Your task to perform on an android device: turn on javascript in the chrome app Image 0: 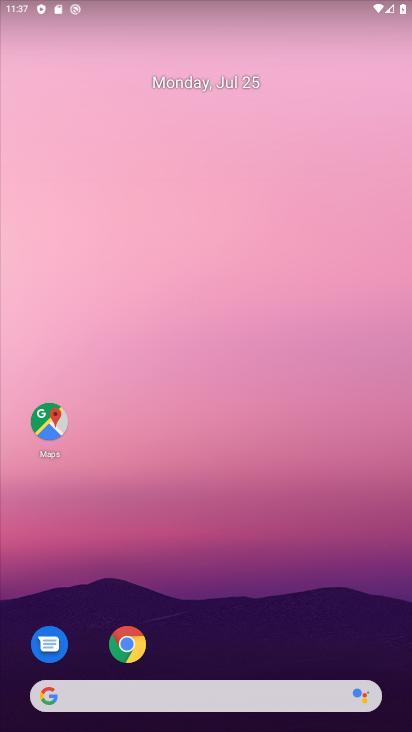
Step 0: drag from (286, 572) to (128, 15)
Your task to perform on an android device: turn on javascript in the chrome app Image 1: 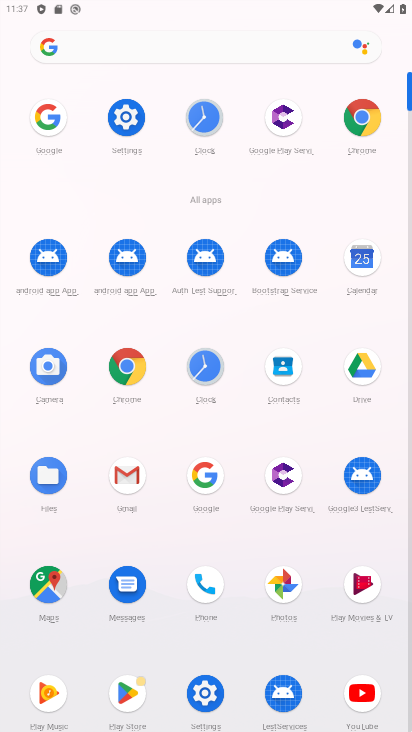
Step 1: click (372, 111)
Your task to perform on an android device: turn on javascript in the chrome app Image 2: 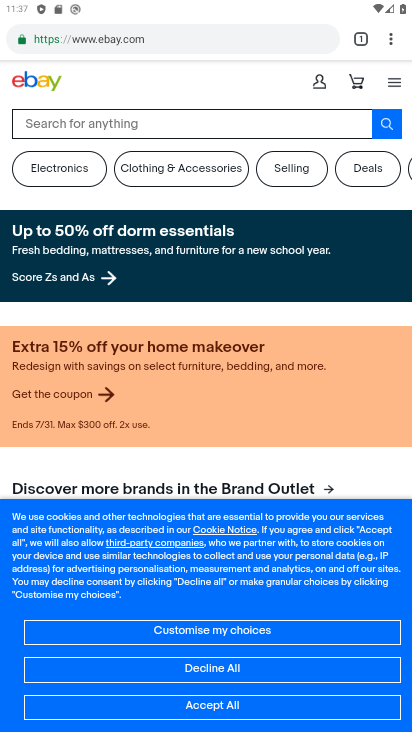
Step 2: drag from (391, 38) to (266, 460)
Your task to perform on an android device: turn on javascript in the chrome app Image 3: 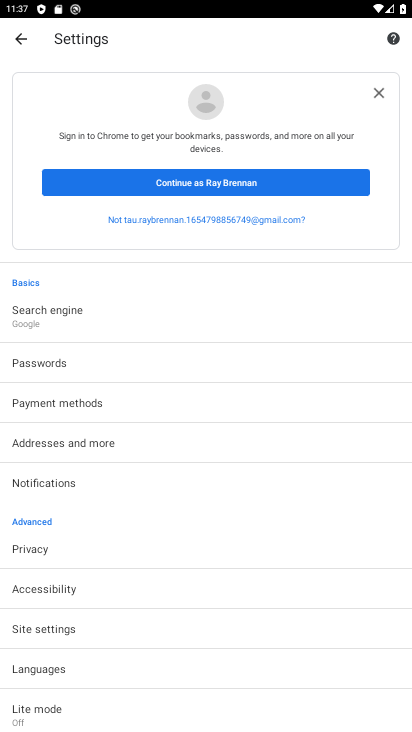
Step 3: drag from (134, 646) to (173, 240)
Your task to perform on an android device: turn on javascript in the chrome app Image 4: 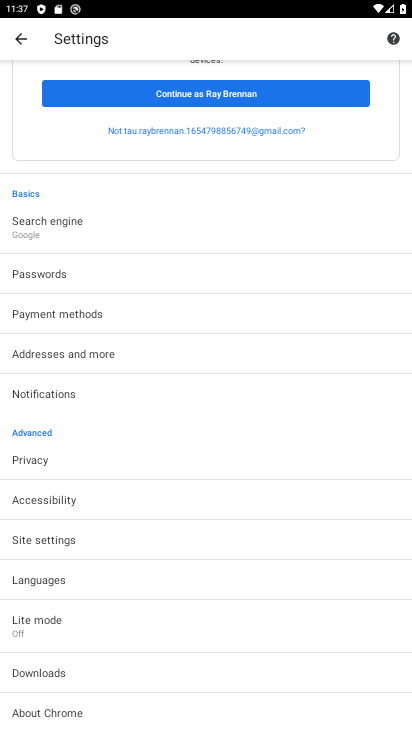
Step 4: click (77, 549)
Your task to perform on an android device: turn on javascript in the chrome app Image 5: 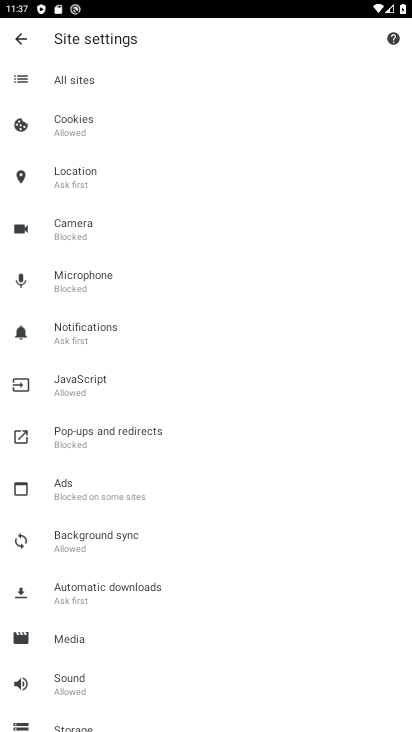
Step 5: click (80, 392)
Your task to perform on an android device: turn on javascript in the chrome app Image 6: 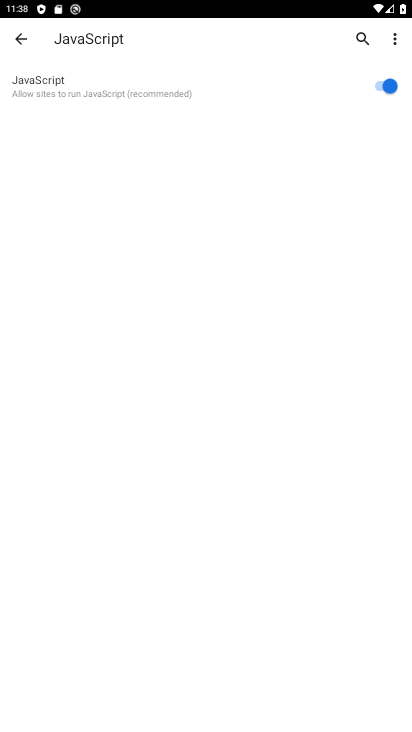
Step 6: task complete